Your task to perform on an android device: snooze an email in the gmail app Image 0: 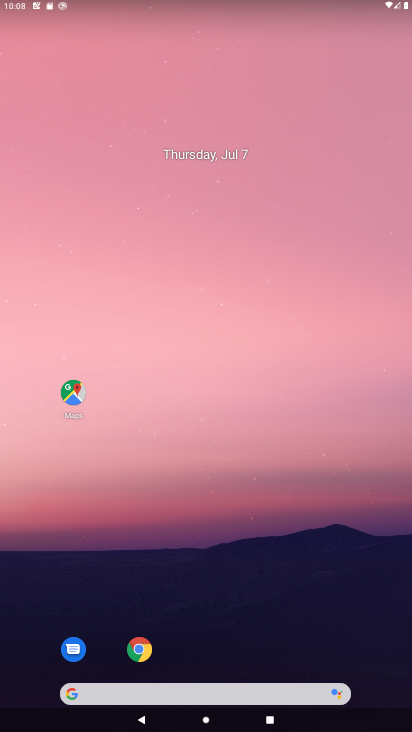
Step 0: drag from (346, 635) to (238, 85)
Your task to perform on an android device: snooze an email in the gmail app Image 1: 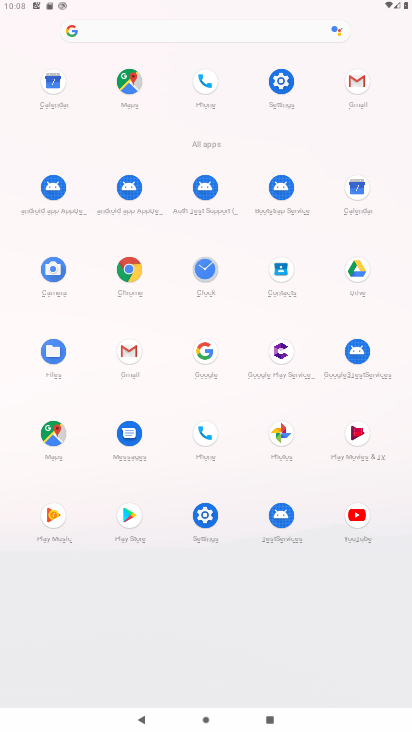
Step 1: click (354, 86)
Your task to perform on an android device: snooze an email in the gmail app Image 2: 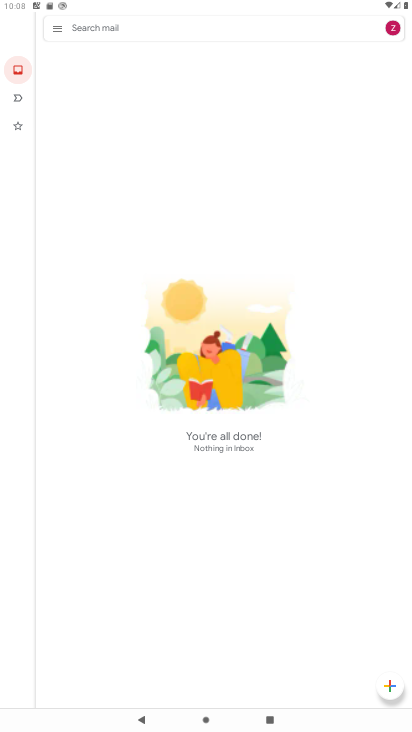
Step 2: click (64, 21)
Your task to perform on an android device: snooze an email in the gmail app Image 3: 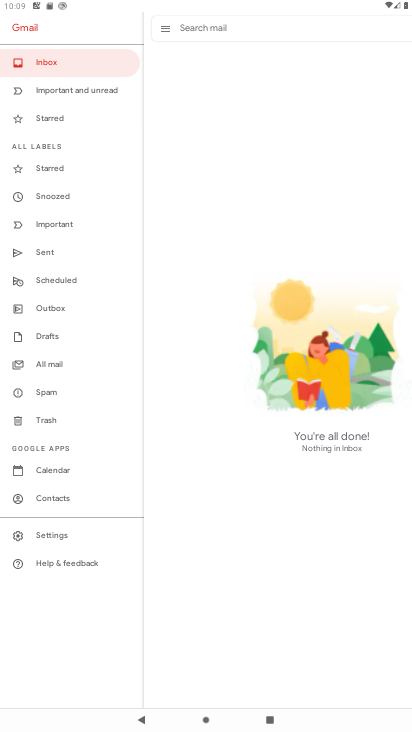
Step 3: click (49, 364)
Your task to perform on an android device: snooze an email in the gmail app Image 4: 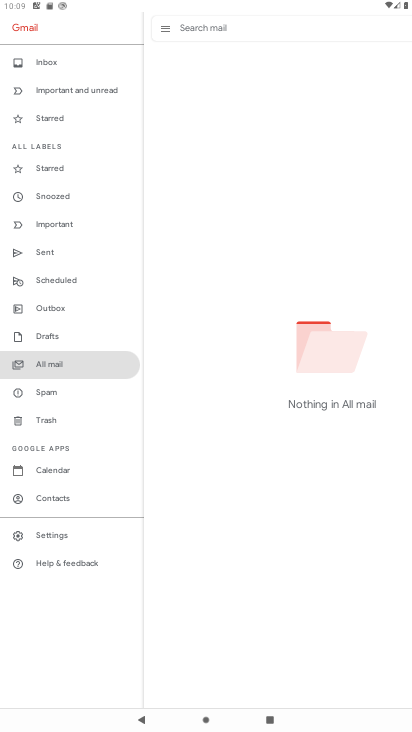
Step 4: task complete